Your task to perform on an android device: Open CNN.com Image 0: 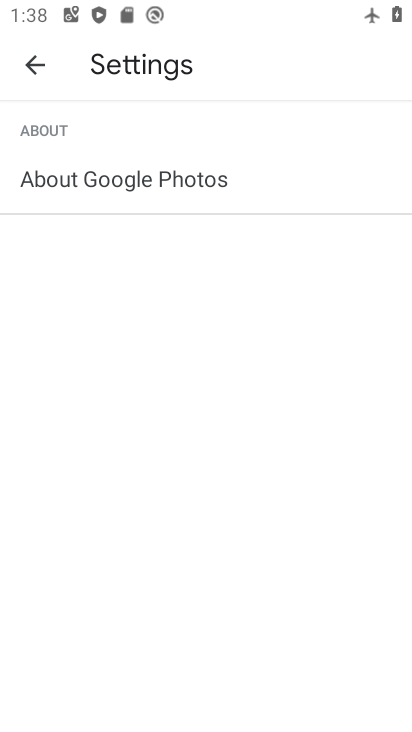
Step 0: press home button
Your task to perform on an android device: Open CNN.com Image 1: 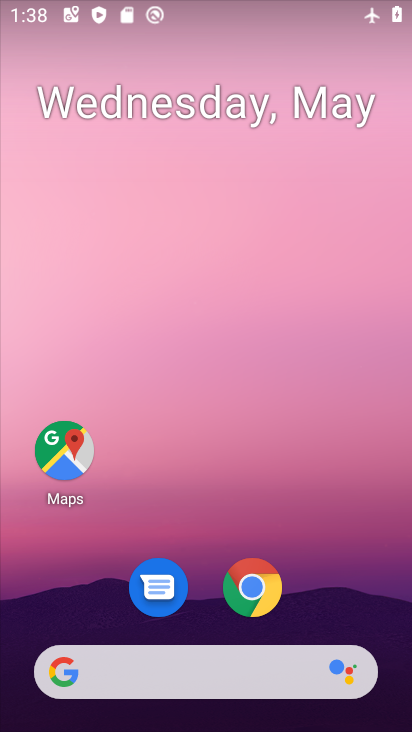
Step 1: click (248, 584)
Your task to perform on an android device: Open CNN.com Image 2: 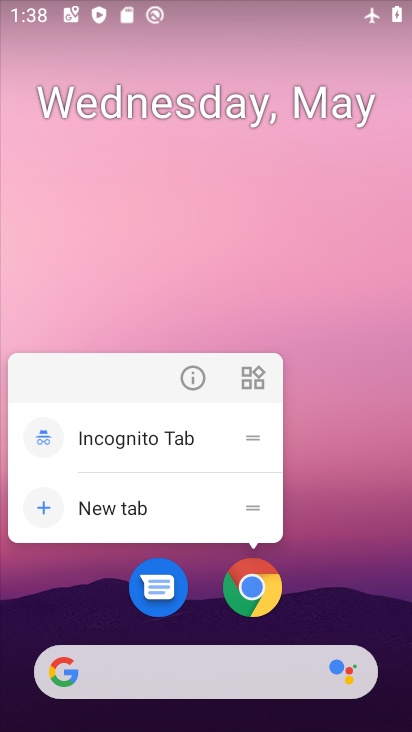
Step 2: click (257, 608)
Your task to perform on an android device: Open CNN.com Image 3: 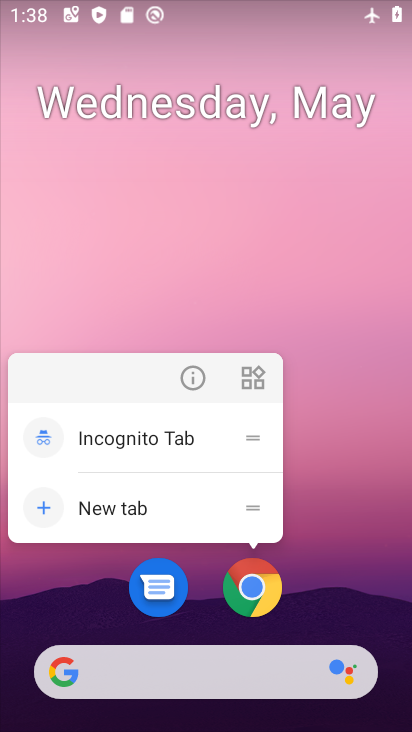
Step 3: click (257, 610)
Your task to perform on an android device: Open CNN.com Image 4: 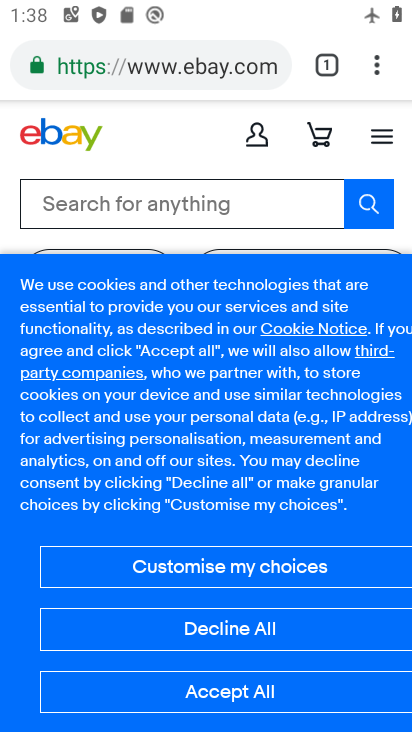
Step 4: click (151, 67)
Your task to perform on an android device: Open CNN.com Image 5: 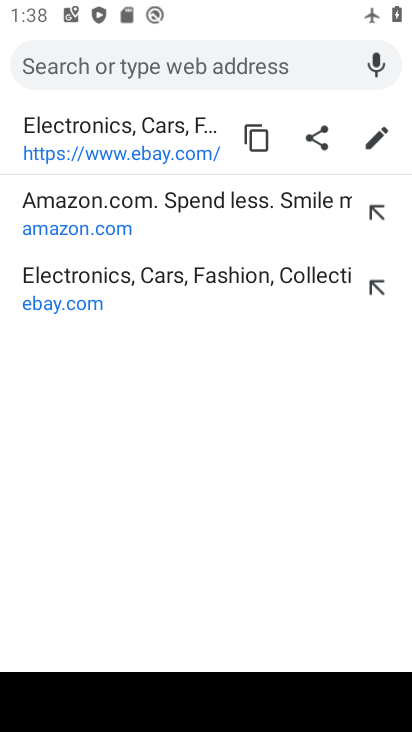
Step 5: type "cnn.com"
Your task to perform on an android device: Open CNN.com Image 6: 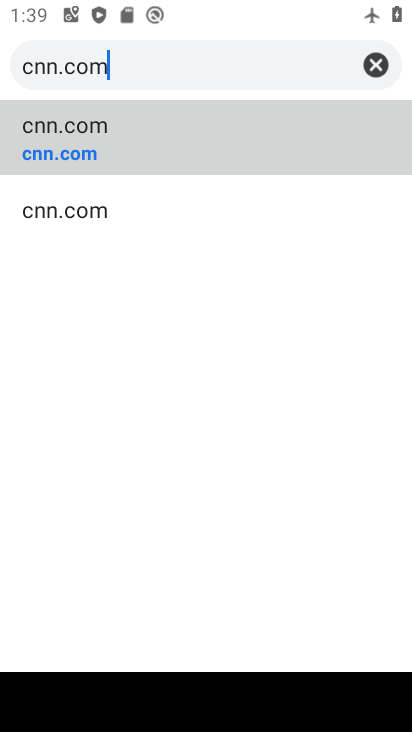
Step 6: click (116, 153)
Your task to perform on an android device: Open CNN.com Image 7: 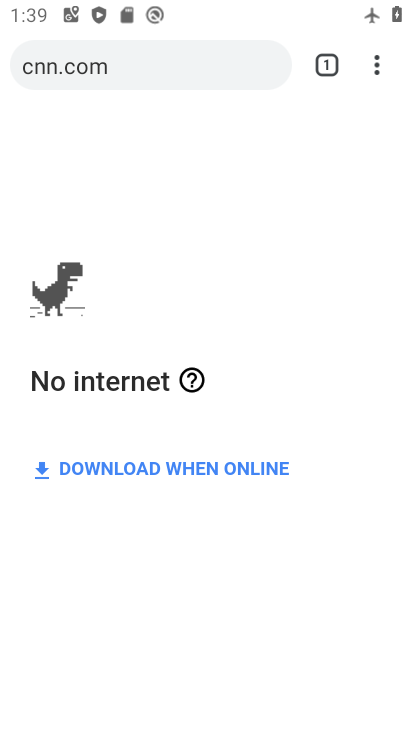
Step 7: task complete